Your task to perform on an android device: change the upload size in google photos Image 0: 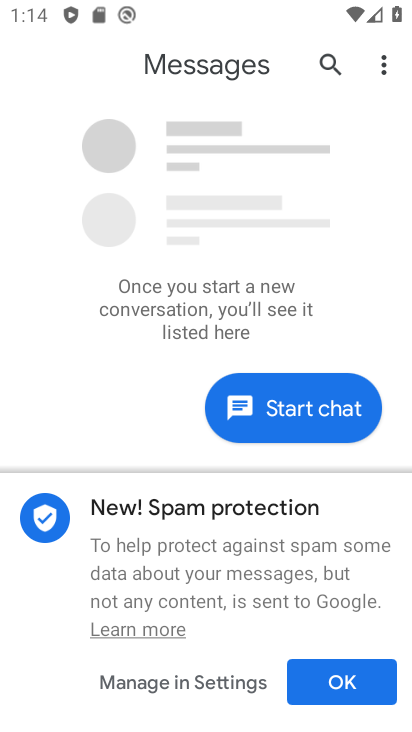
Step 0: press back button
Your task to perform on an android device: change the upload size in google photos Image 1: 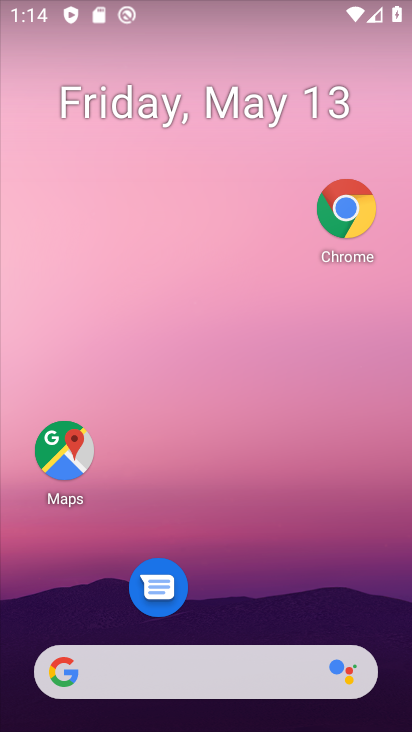
Step 1: drag from (247, 602) to (325, 130)
Your task to perform on an android device: change the upload size in google photos Image 2: 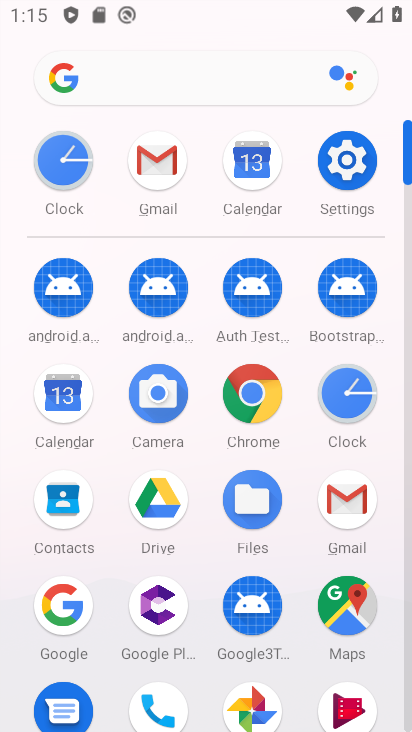
Step 2: click (254, 708)
Your task to perform on an android device: change the upload size in google photos Image 3: 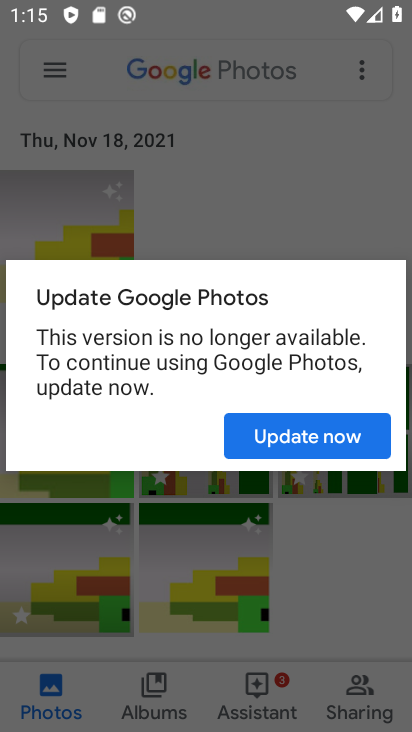
Step 3: click (261, 547)
Your task to perform on an android device: change the upload size in google photos Image 4: 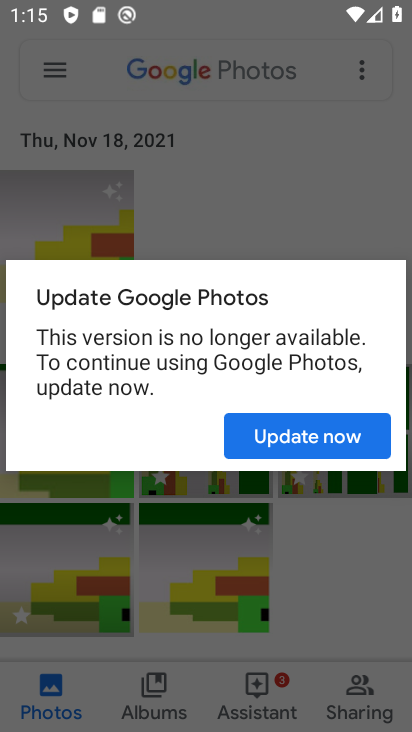
Step 4: click (315, 434)
Your task to perform on an android device: change the upload size in google photos Image 5: 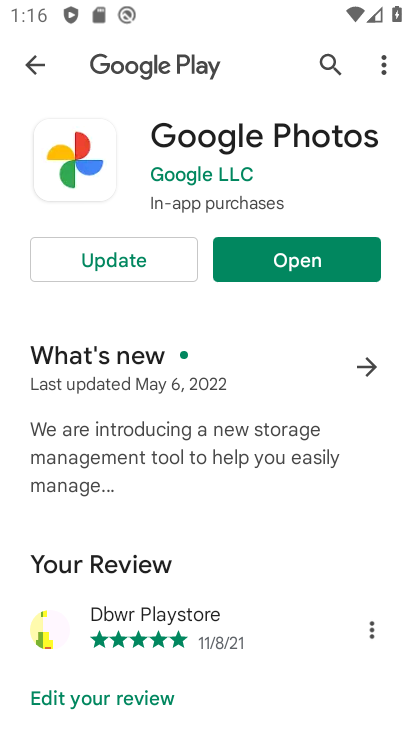
Step 5: press back button
Your task to perform on an android device: change the upload size in google photos Image 6: 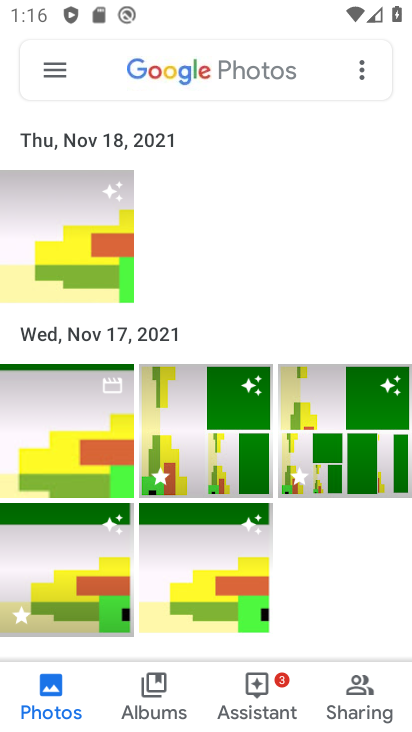
Step 6: click (49, 68)
Your task to perform on an android device: change the upload size in google photos Image 7: 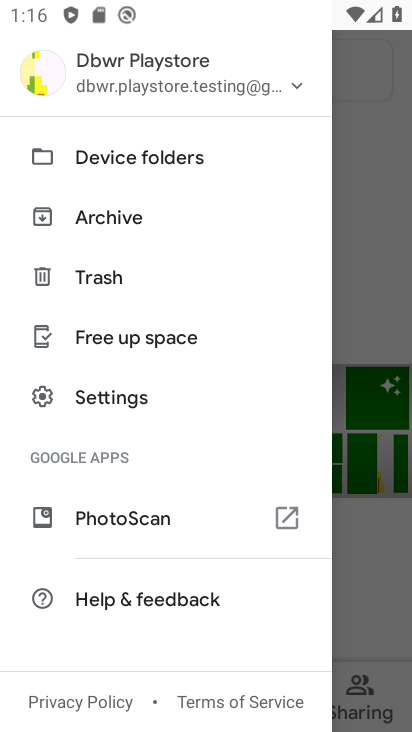
Step 7: click (104, 397)
Your task to perform on an android device: change the upload size in google photos Image 8: 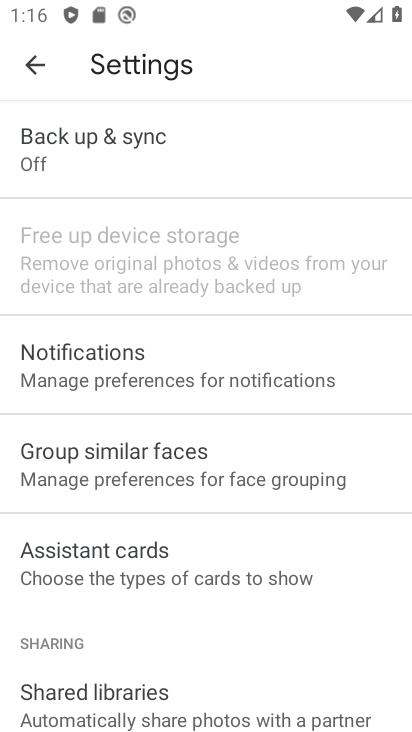
Step 8: drag from (197, 247) to (170, 719)
Your task to perform on an android device: change the upload size in google photos Image 9: 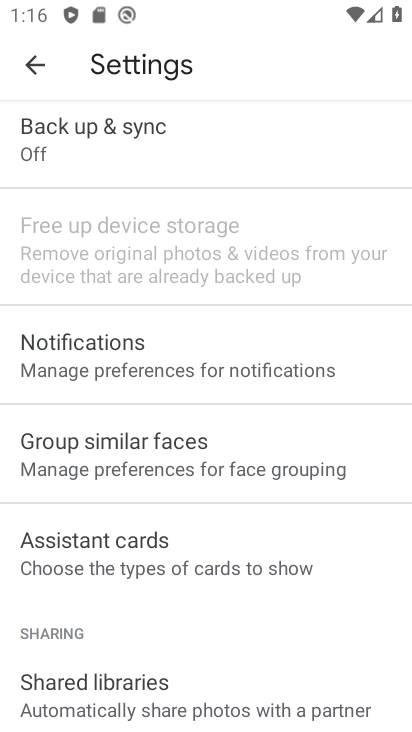
Step 9: click (121, 122)
Your task to perform on an android device: change the upload size in google photos Image 10: 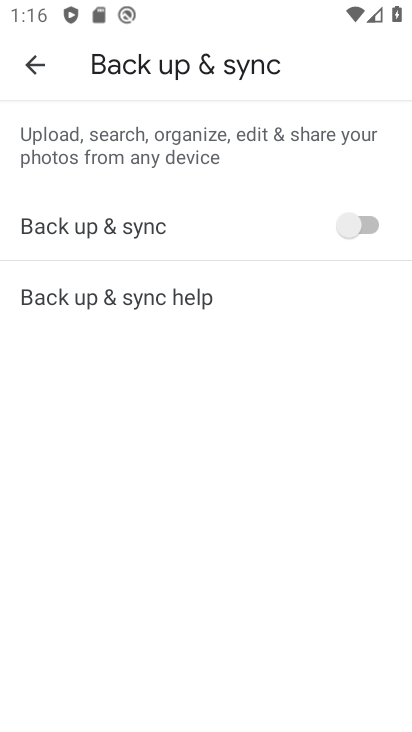
Step 10: click (32, 61)
Your task to perform on an android device: change the upload size in google photos Image 11: 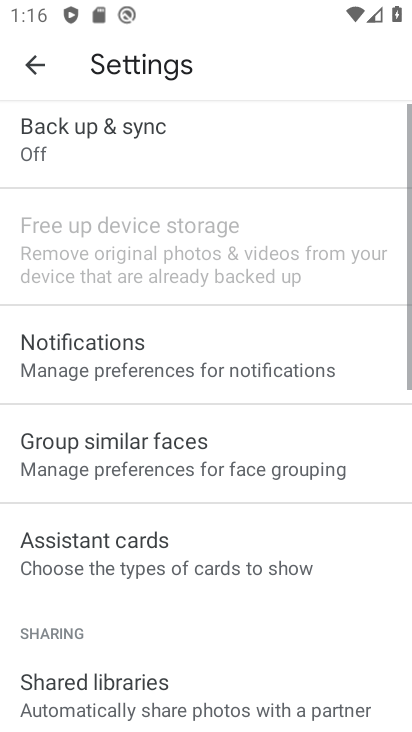
Step 11: click (144, 157)
Your task to perform on an android device: change the upload size in google photos Image 12: 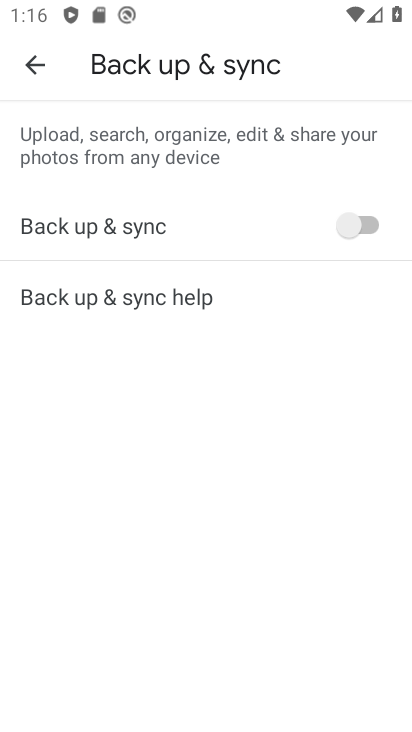
Step 12: click (341, 223)
Your task to perform on an android device: change the upload size in google photos Image 13: 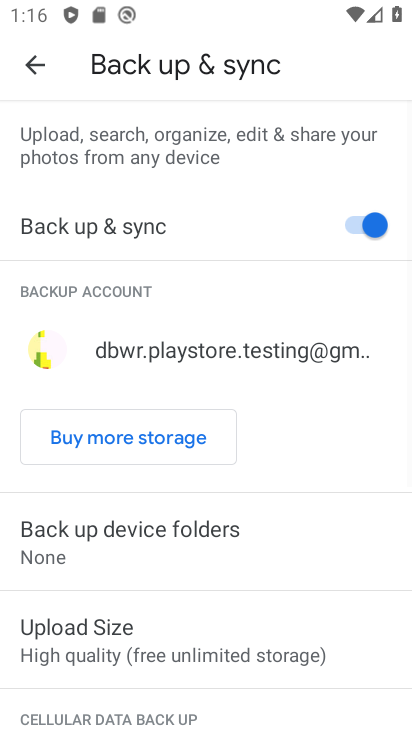
Step 13: click (109, 627)
Your task to perform on an android device: change the upload size in google photos Image 14: 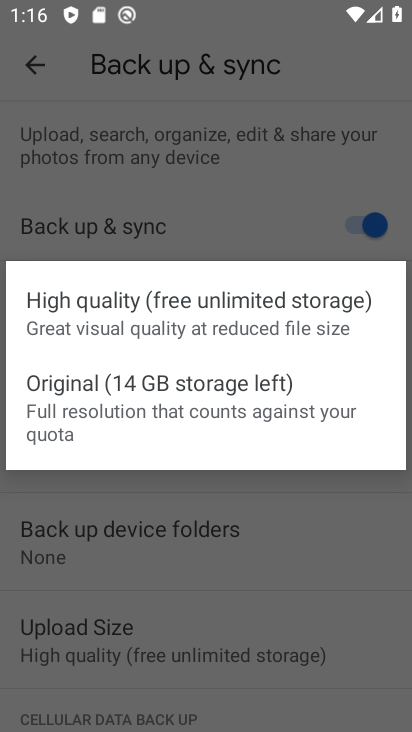
Step 14: click (119, 420)
Your task to perform on an android device: change the upload size in google photos Image 15: 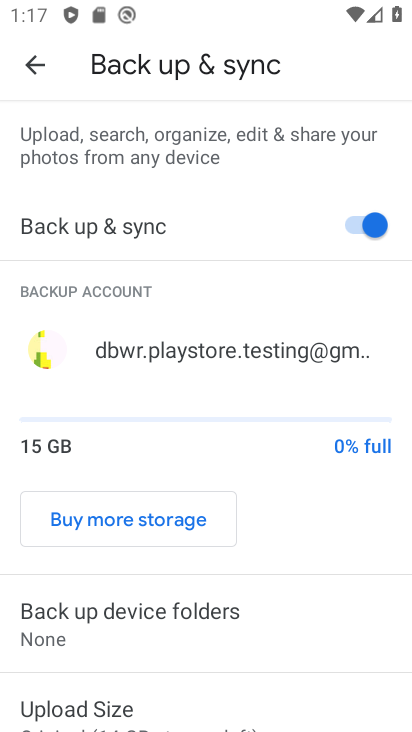
Step 15: task complete